Your task to perform on an android device: Go to network settings Image 0: 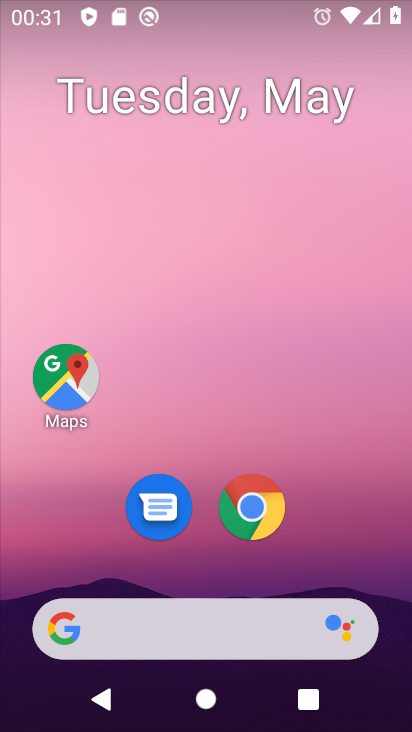
Step 0: drag from (164, 595) to (199, 183)
Your task to perform on an android device: Go to network settings Image 1: 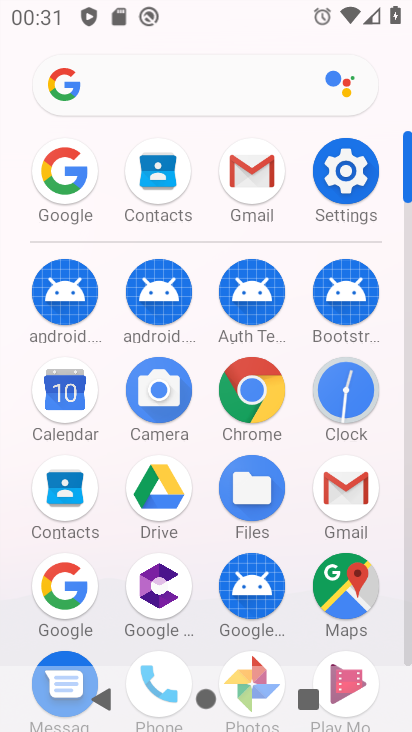
Step 1: click (341, 168)
Your task to perform on an android device: Go to network settings Image 2: 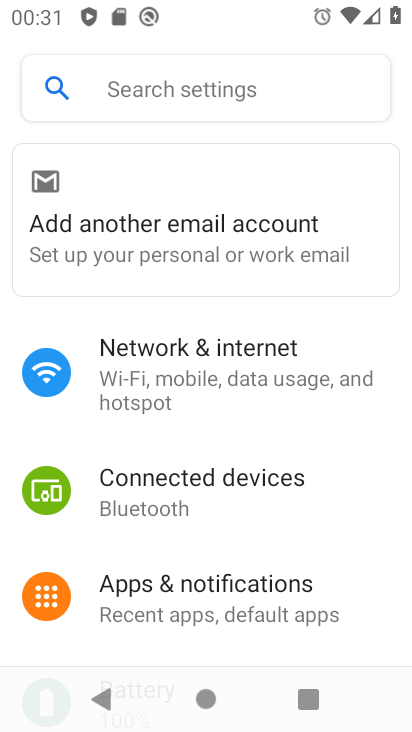
Step 2: click (231, 361)
Your task to perform on an android device: Go to network settings Image 3: 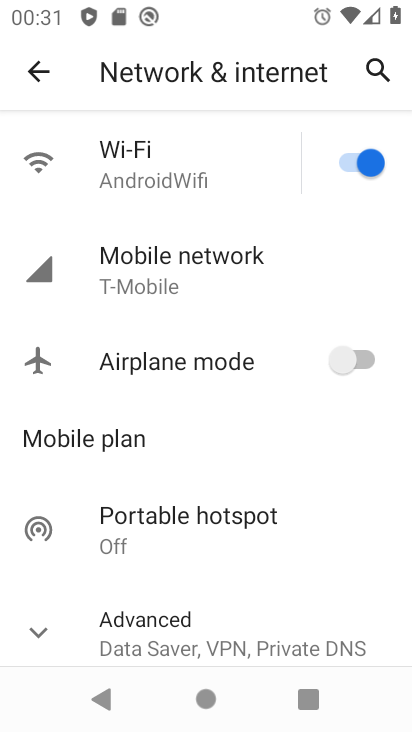
Step 3: click (106, 640)
Your task to perform on an android device: Go to network settings Image 4: 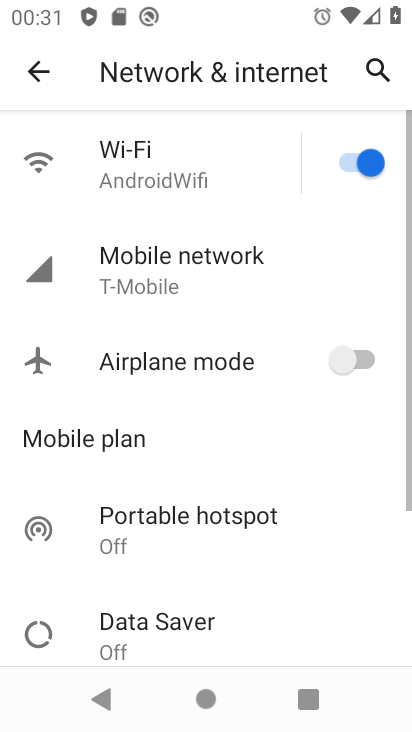
Step 4: task complete